Your task to perform on an android device: turn vacation reply on in the gmail app Image 0: 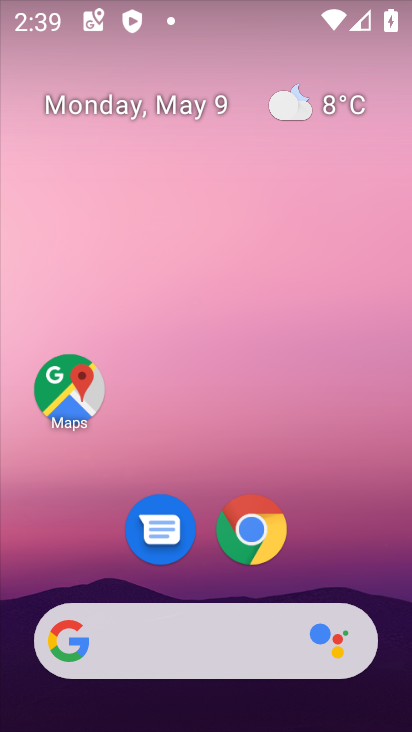
Step 0: drag from (242, 543) to (265, 40)
Your task to perform on an android device: turn vacation reply on in the gmail app Image 1: 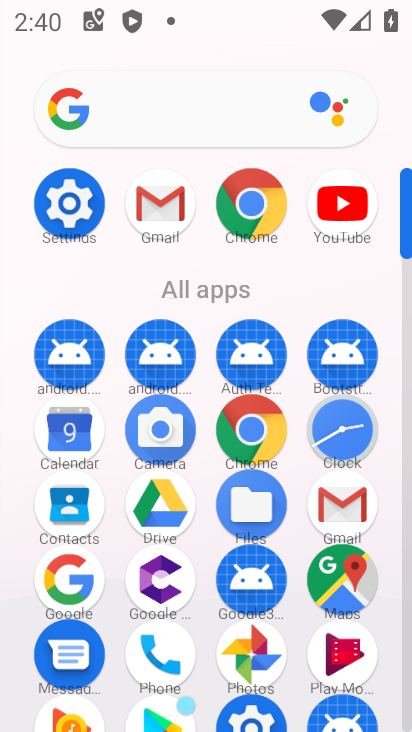
Step 1: click (183, 209)
Your task to perform on an android device: turn vacation reply on in the gmail app Image 2: 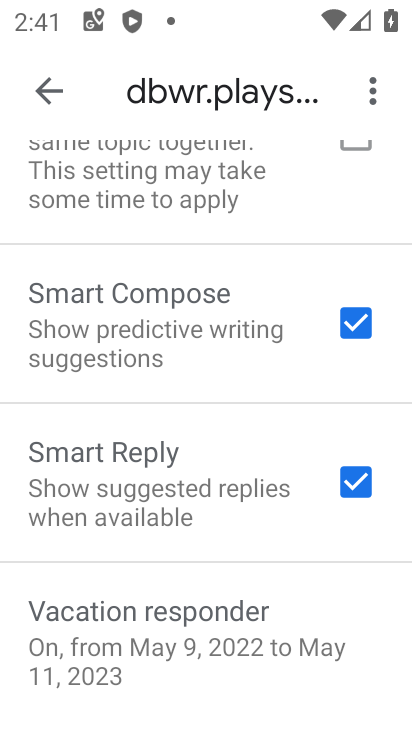
Step 2: drag from (212, 666) to (128, 28)
Your task to perform on an android device: turn vacation reply on in the gmail app Image 3: 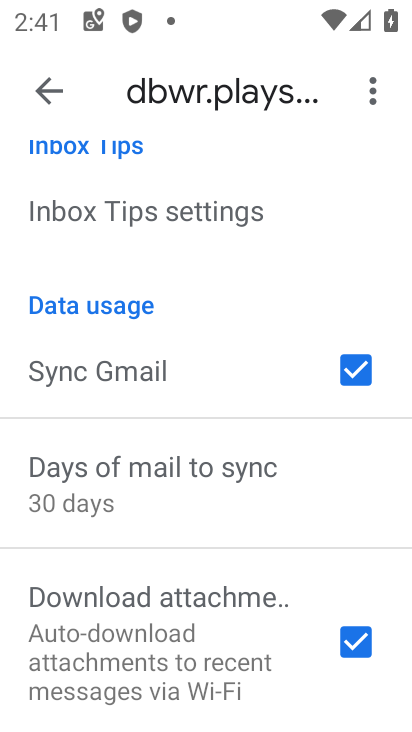
Step 3: drag from (264, 197) to (250, 541)
Your task to perform on an android device: turn vacation reply on in the gmail app Image 4: 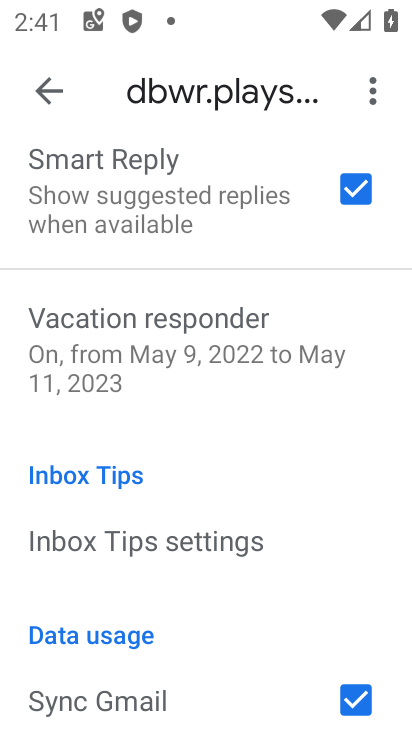
Step 4: click (257, 344)
Your task to perform on an android device: turn vacation reply on in the gmail app Image 5: 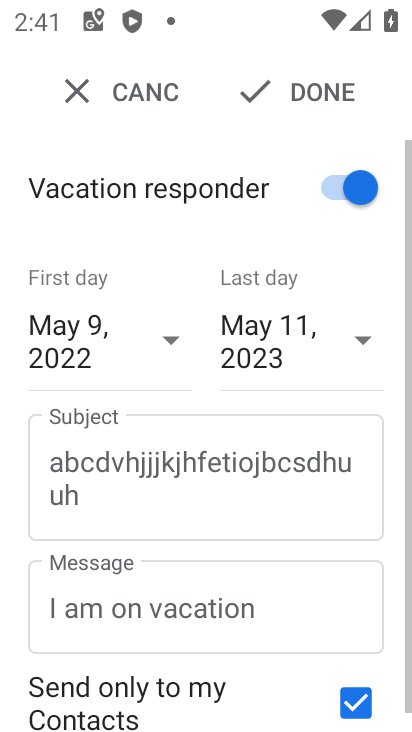
Step 5: click (316, 93)
Your task to perform on an android device: turn vacation reply on in the gmail app Image 6: 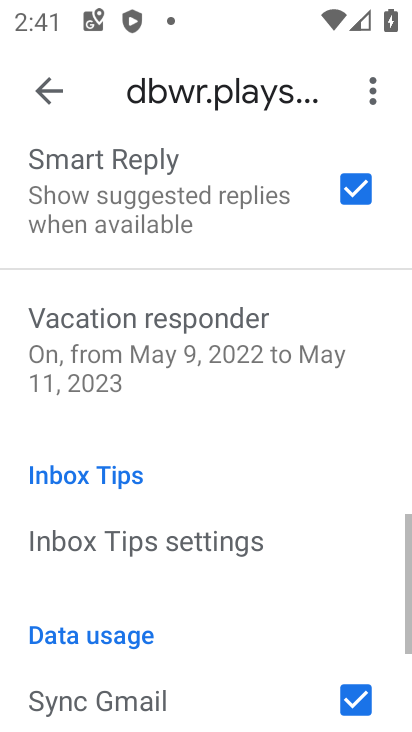
Step 6: task complete